Your task to perform on an android device: Open Chrome and go to settings Image 0: 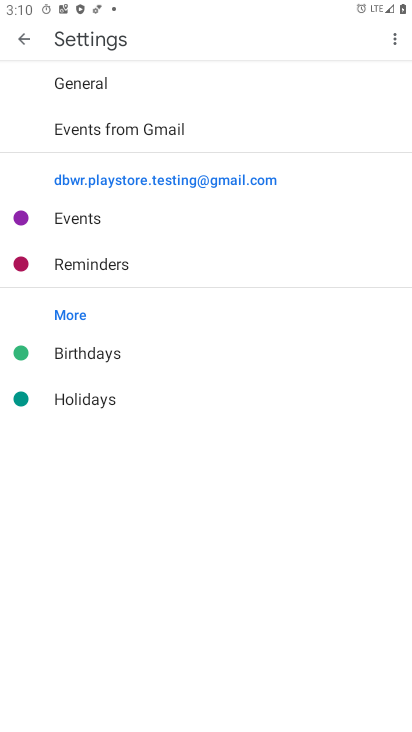
Step 0: press home button
Your task to perform on an android device: Open Chrome and go to settings Image 1: 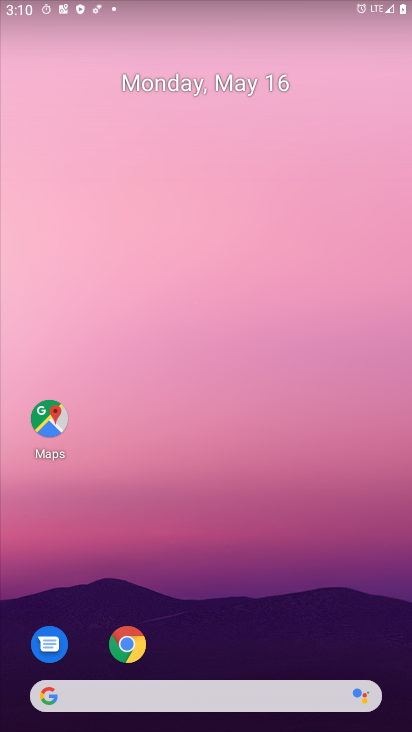
Step 1: drag from (180, 678) to (279, 176)
Your task to perform on an android device: Open Chrome and go to settings Image 2: 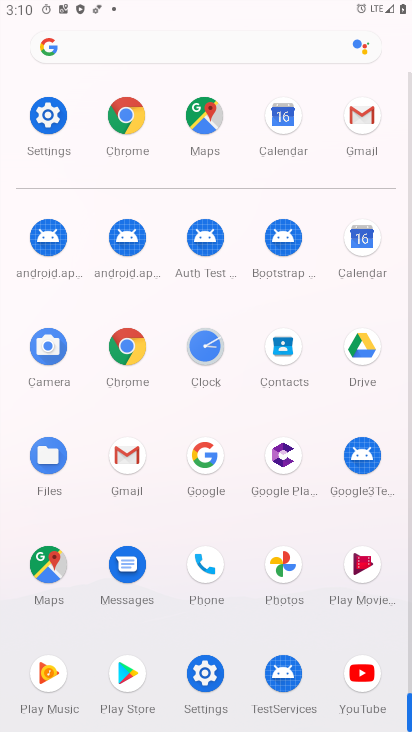
Step 2: click (125, 361)
Your task to perform on an android device: Open Chrome and go to settings Image 3: 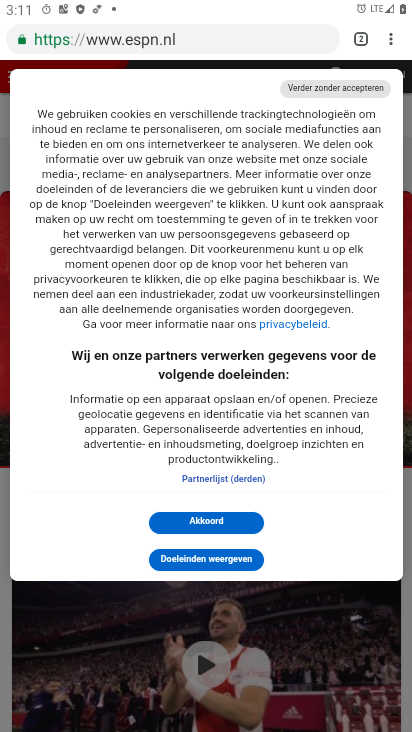
Step 3: click (389, 43)
Your task to perform on an android device: Open Chrome and go to settings Image 4: 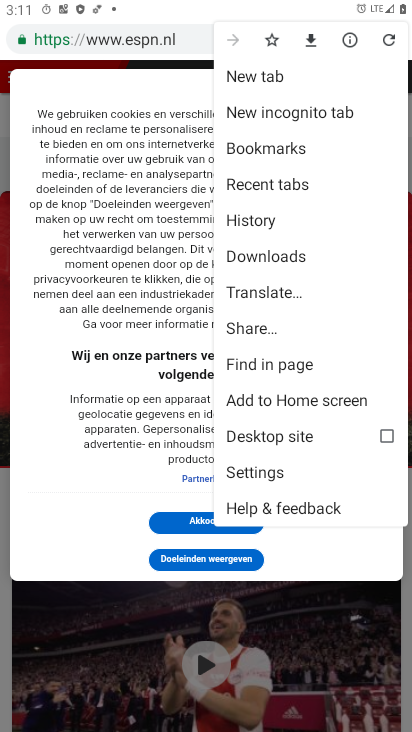
Step 4: drag from (314, 412) to (333, 214)
Your task to perform on an android device: Open Chrome and go to settings Image 5: 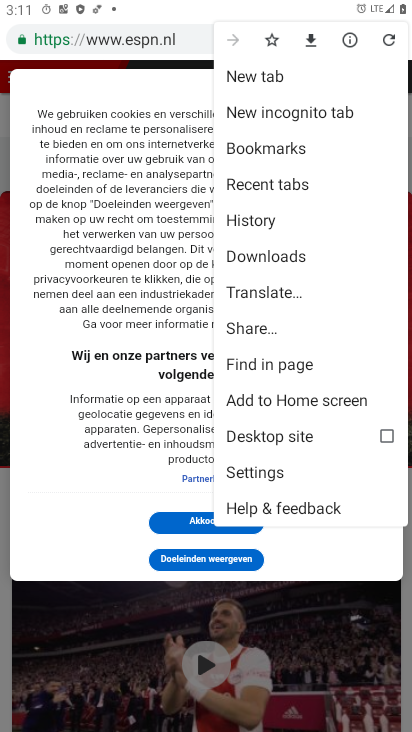
Step 5: click (304, 477)
Your task to perform on an android device: Open Chrome and go to settings Image 6: 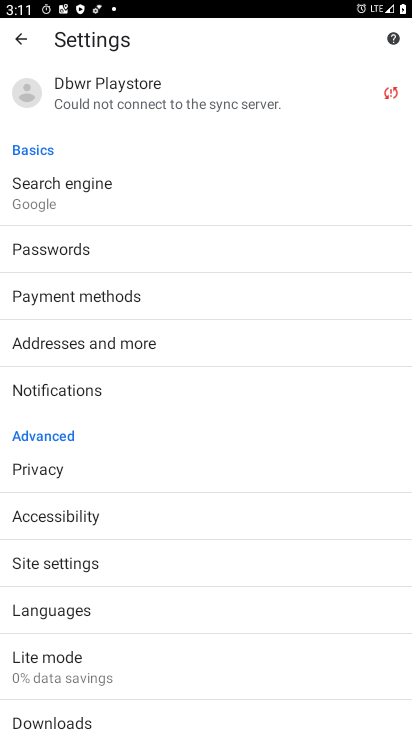
Step 6: task complete